Your task to perform on an android device: Open ESPN.com Image 0: 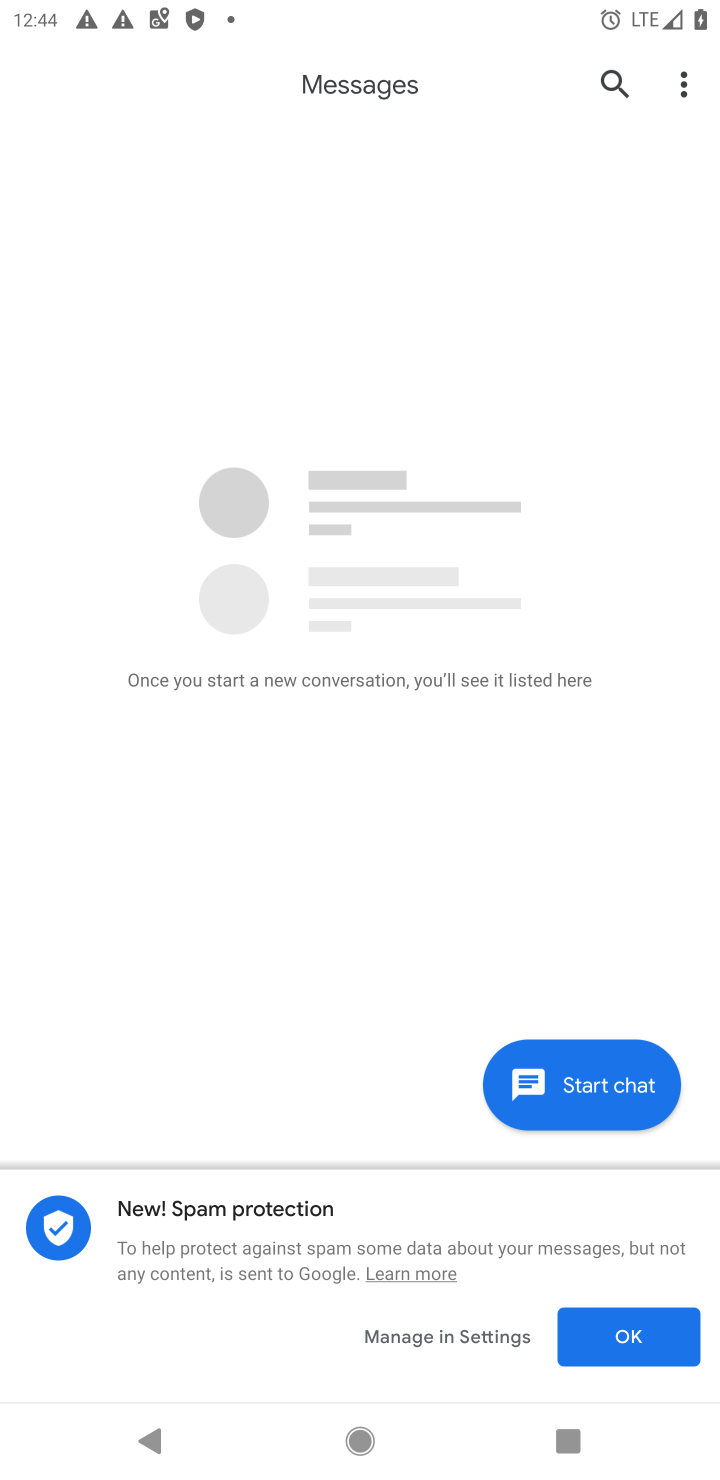
Step 0: press home button
Your task to perform on an android device: Open ESPN.com Image 1: 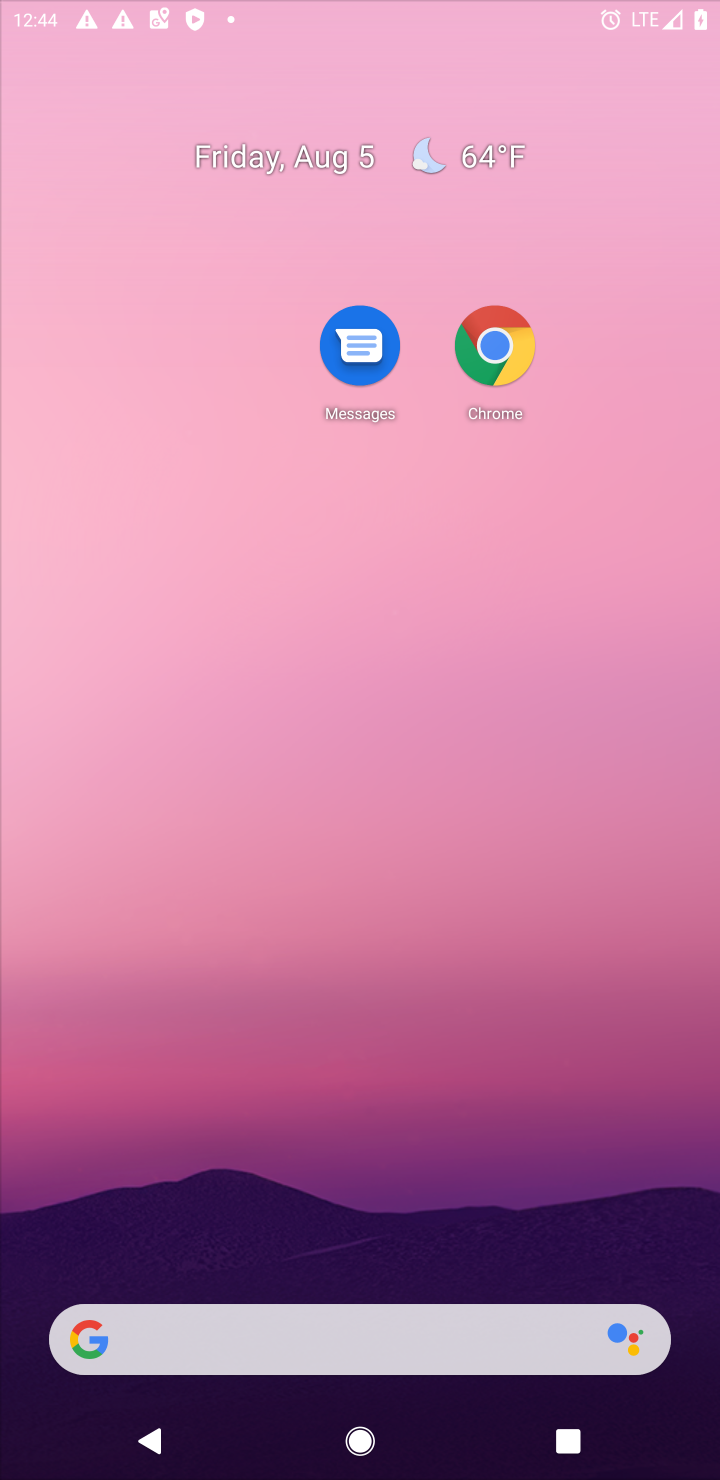
Step 1: drag from (297, 1143) to (307, 6)
Your task to perform on an android device: Open ESPN.com Image 2: 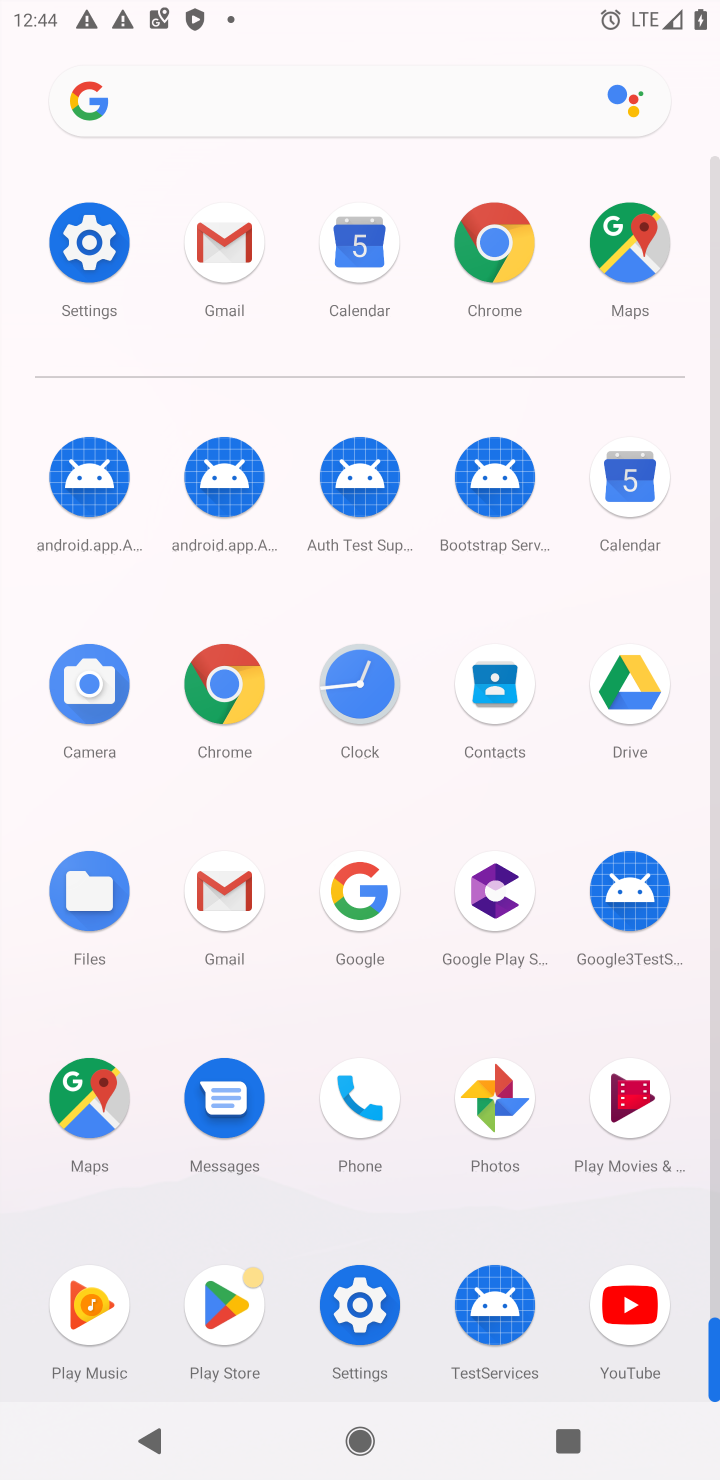
Step 2: click (227, 711)
Your task to perform on an android device: Open ESPN.com Image 3: 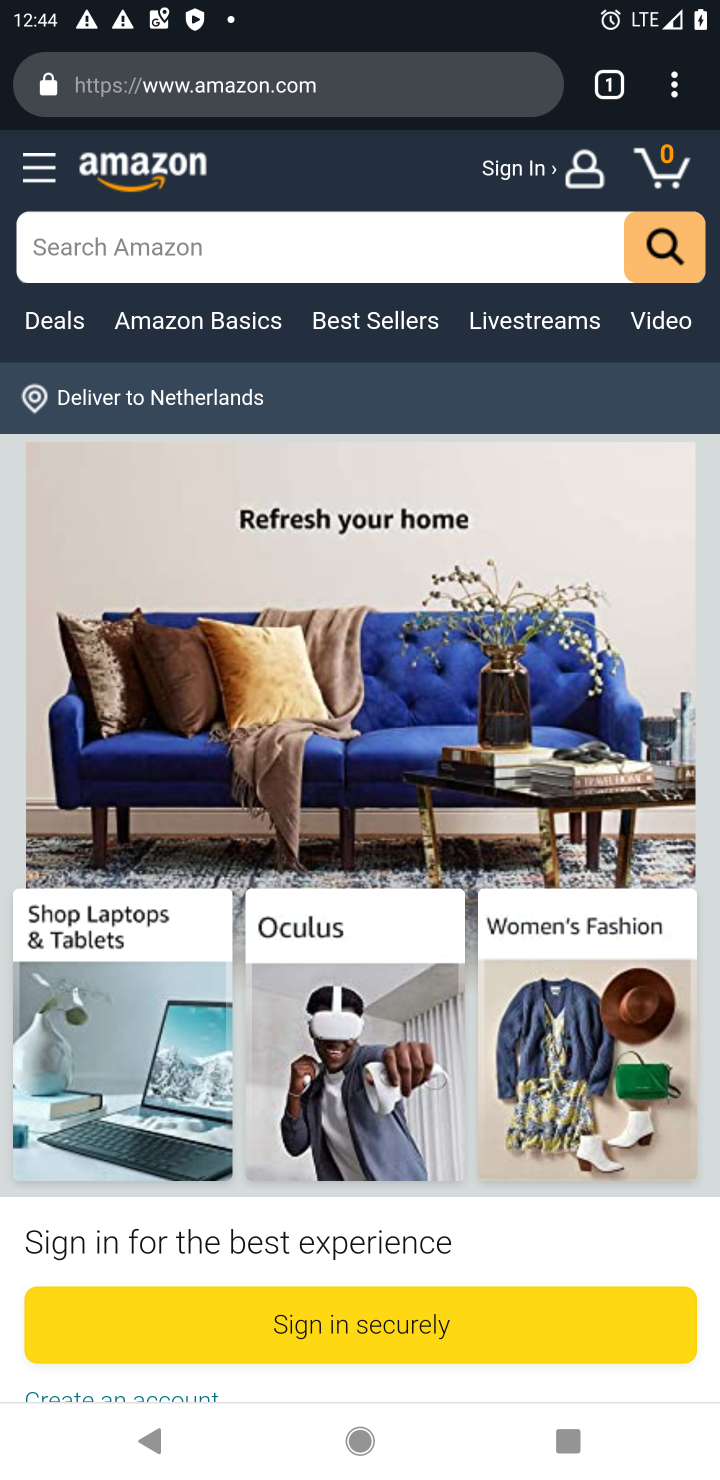
Step 3: click (303, 76)
Your task to perform on an android device: Open ESPN.com Image 4: 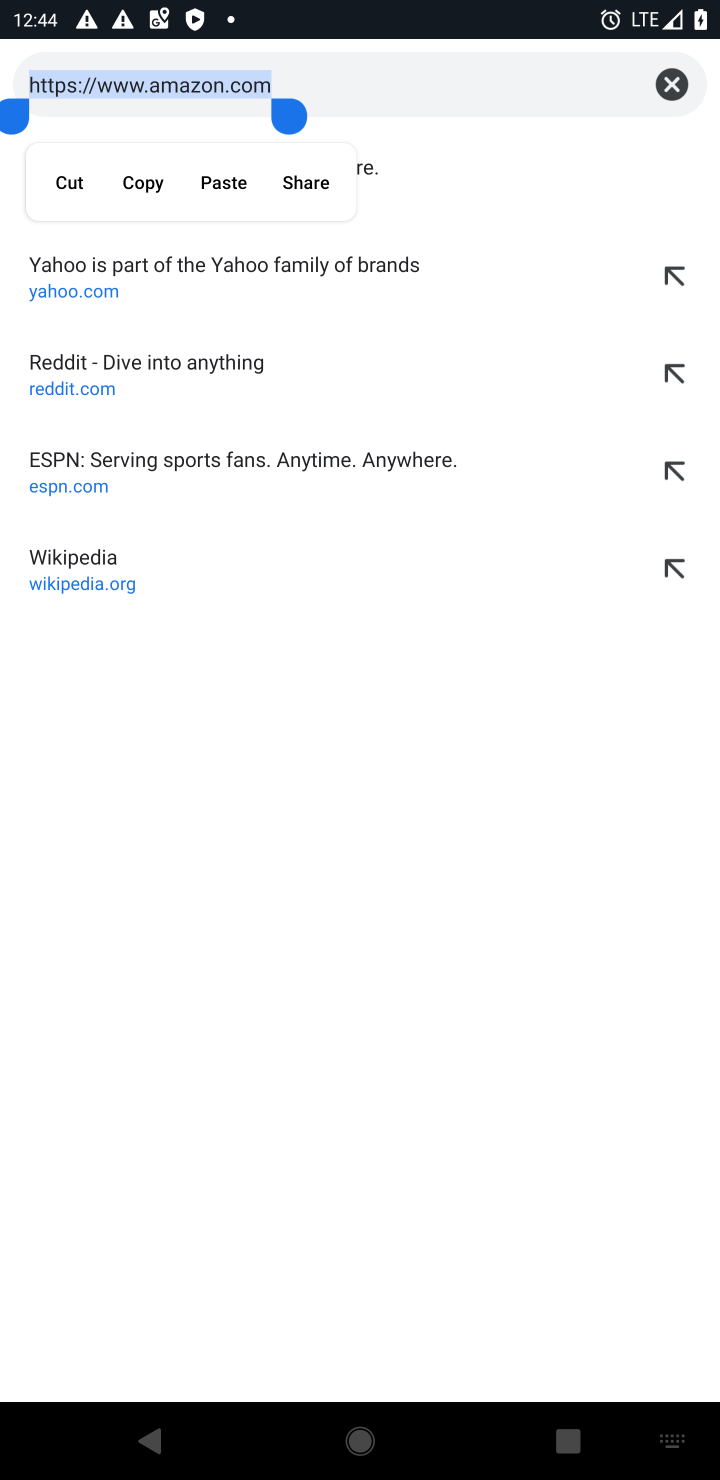
Step 4: click (664, 81)
Your task to perform on an android device: Open ESPN.com Image 5: 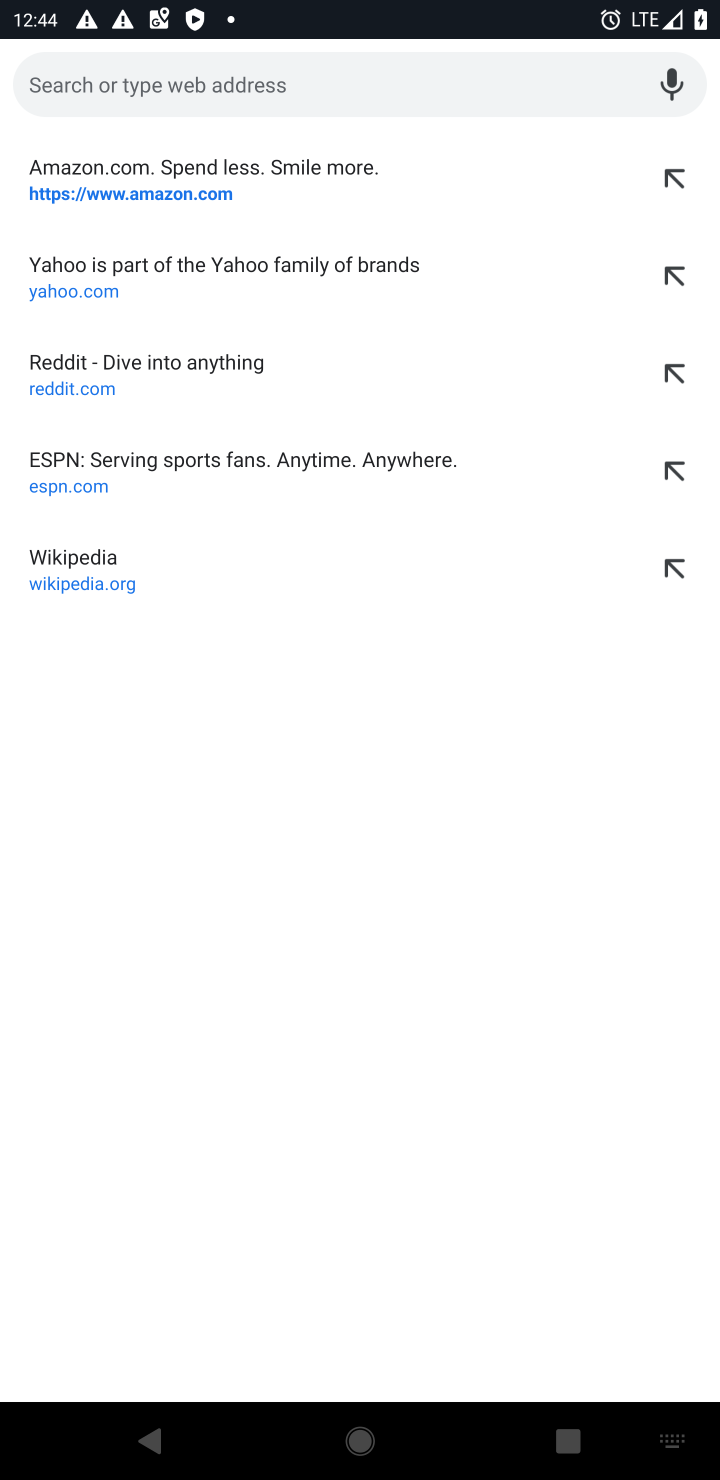
Step 5: click (92, 480)
Your task to perform on an android device: Open ESPN.com Image 6: 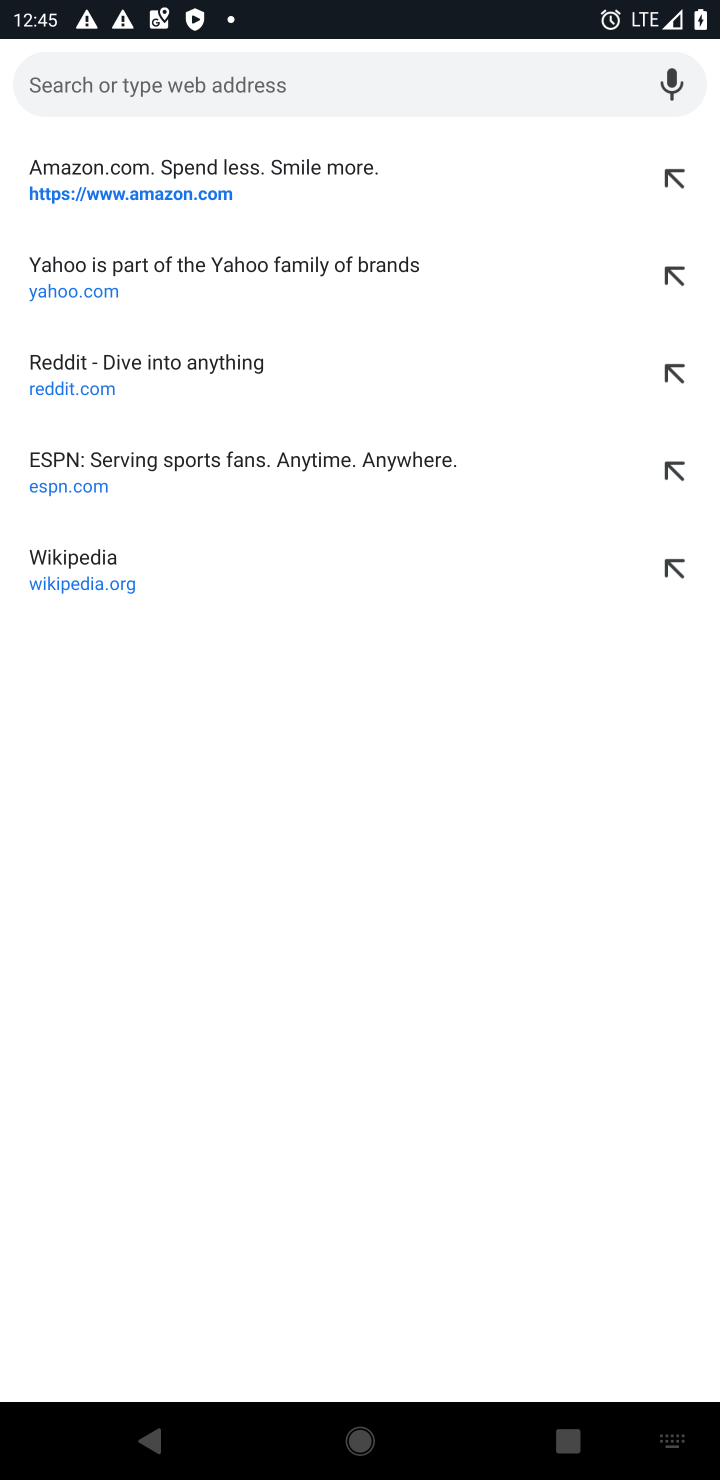
Step 6: type " ESPN.com"
Your task to perform on an android device: Open ESPN.com Image 7: 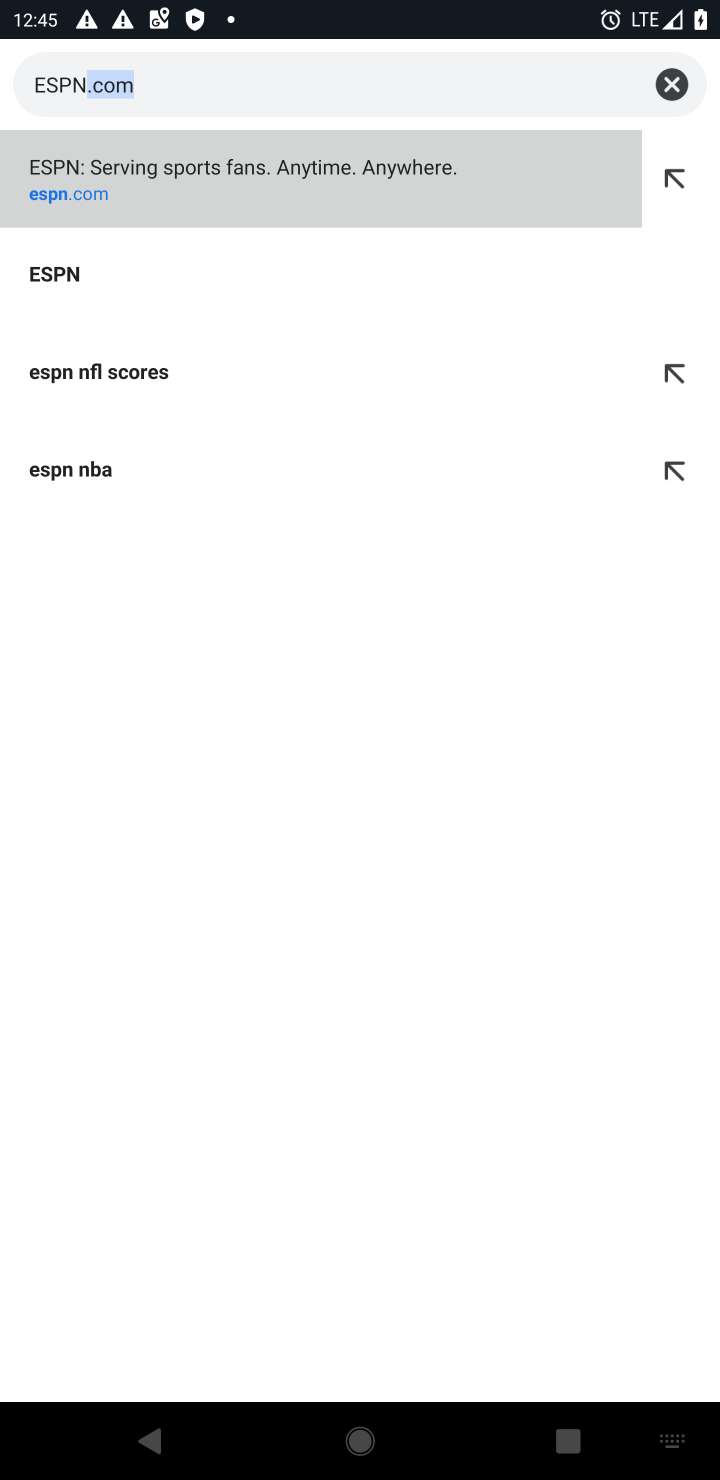
Step 7: press enter
Your task to perform on an android device: Open ESPN.com Image 8: 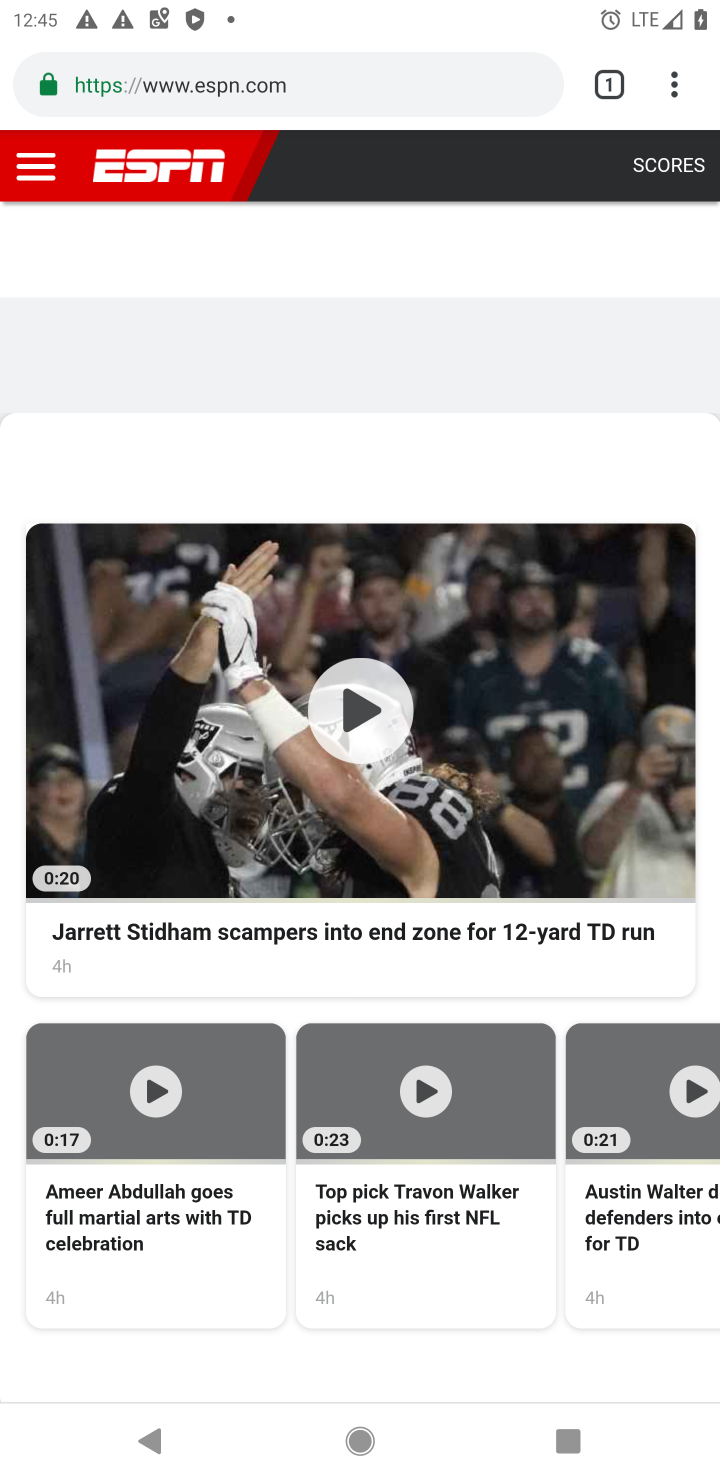
Step 8: task complete